Your task to perform on an android device: change timer sound Image 0: 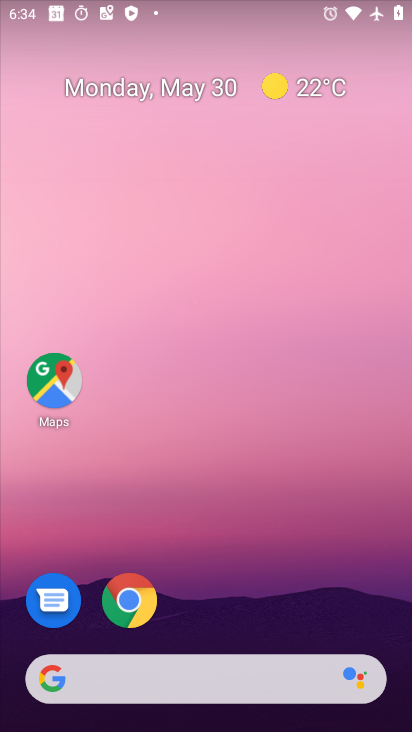
Step 0: drag from (264, 619) to (313, 146)
Your task to perform on an android device: change timer sound Image 1: 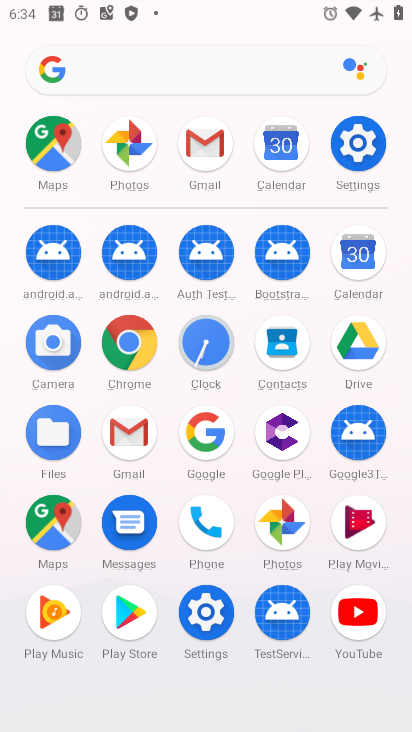
Step 1: click (212, 351)
Your task to perform on an android device: change timer sound Image 2: 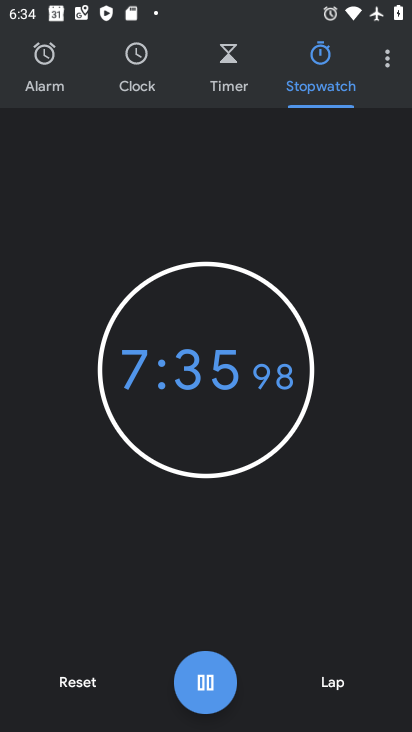
Step 2: click (383, 63)
Your task to perform on an android device: change timer sound Image 3: 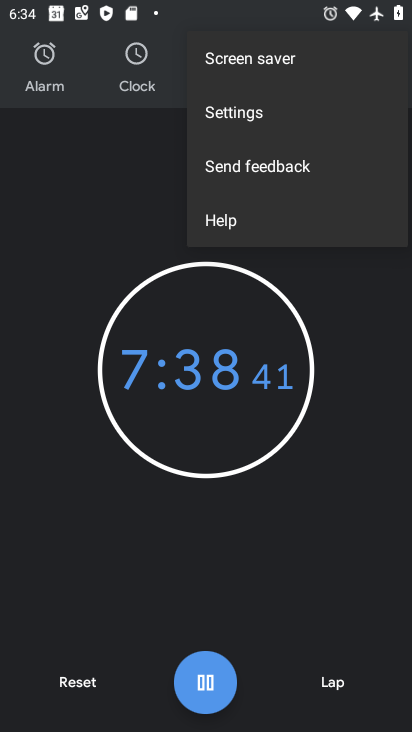
Step 3: click (225, 125)
Your task to perform on an android device: change timer sound Image 4: 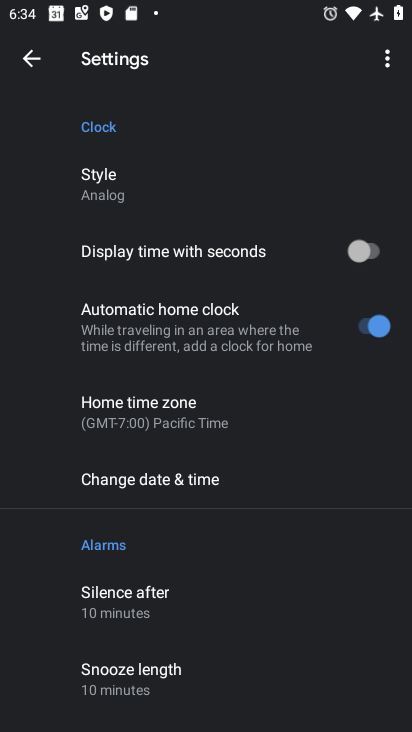
Step 4: drag from (286, 590) to (325, 337)
Your task to perform on an android device: change timer sound Image 5: 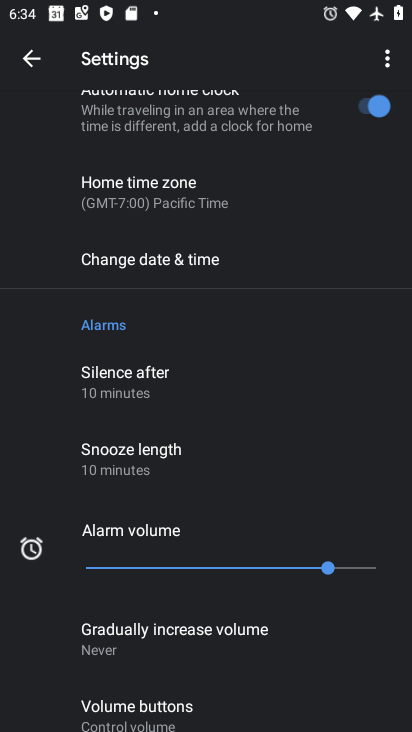
Step 5: drag from (316, 670) to (328, 501)
Your task to perform on an android device: change timer sound Image 6: 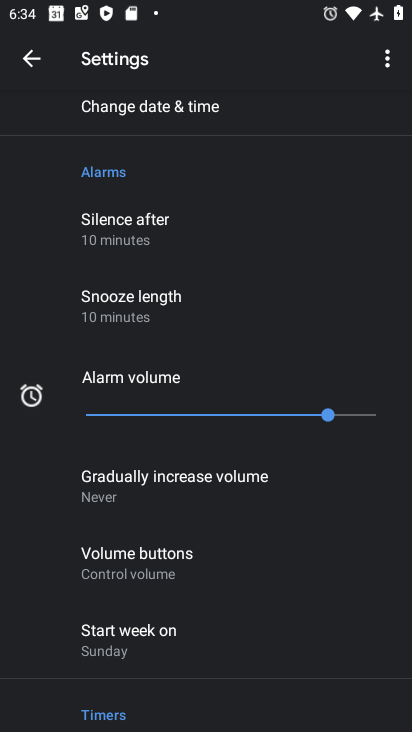
Step 6: drag from (262, 588) to (252, 339)
Your task to perform on an android device: change timer sound Image 7: 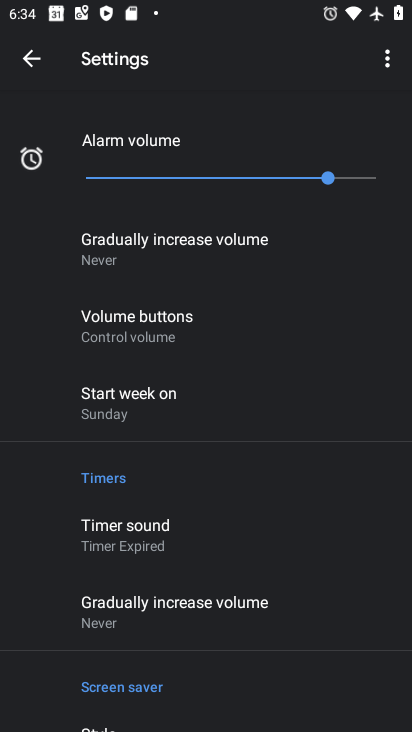
Step 7: click (117, 530)
Your task to perform on an android device: change timer sound Image 8: 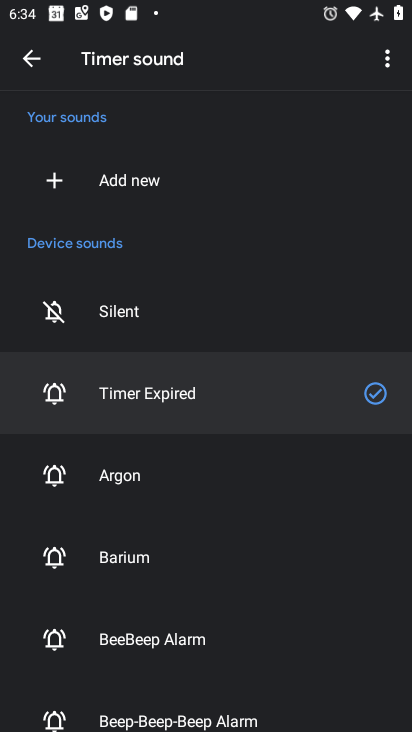
Step 8: click (110, 473)
Your task to perform on an android device: change timer sound Image 9: 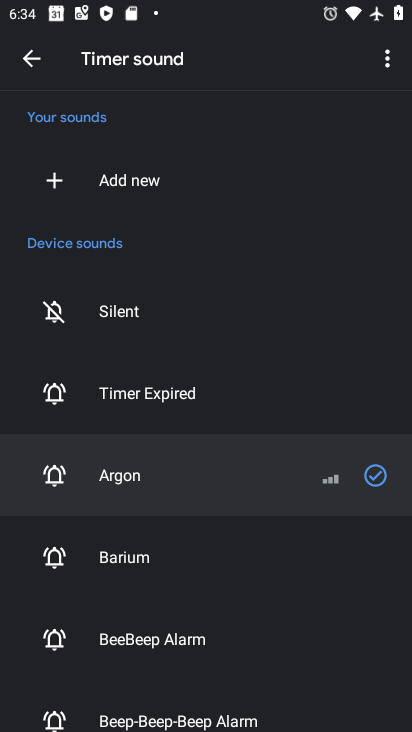
Step 9: task complete